Your task to perform on an android device: Is it going to rain tomorrow? Image 0: 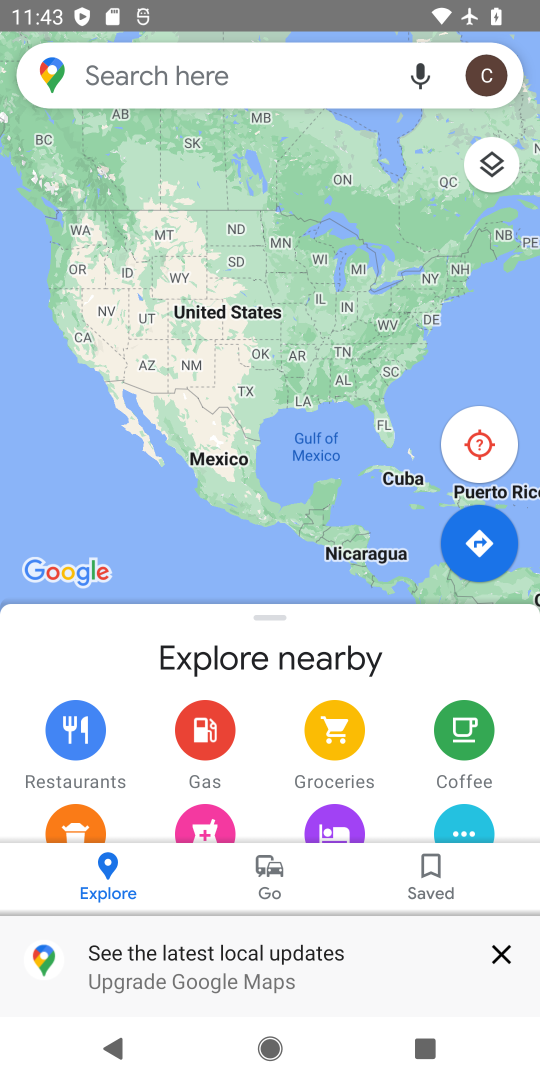
Step 0: press home button
Your task to perform on an android device: Is it going to rain tomorrow? Image 1: 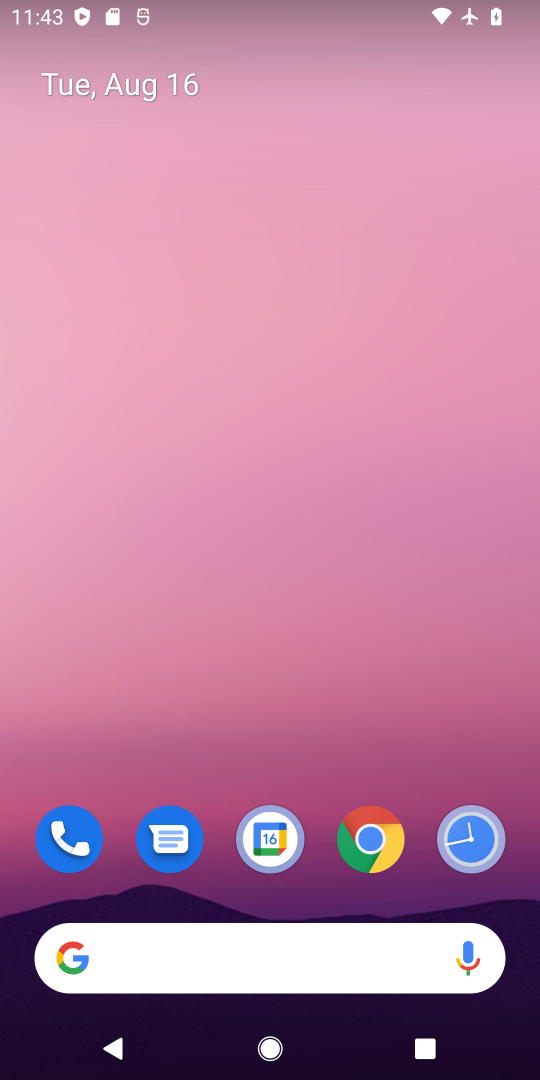
Step 1: click (206, 956)
Your task to perform on an android device: Is it going to rain tomorrow? Image 2: 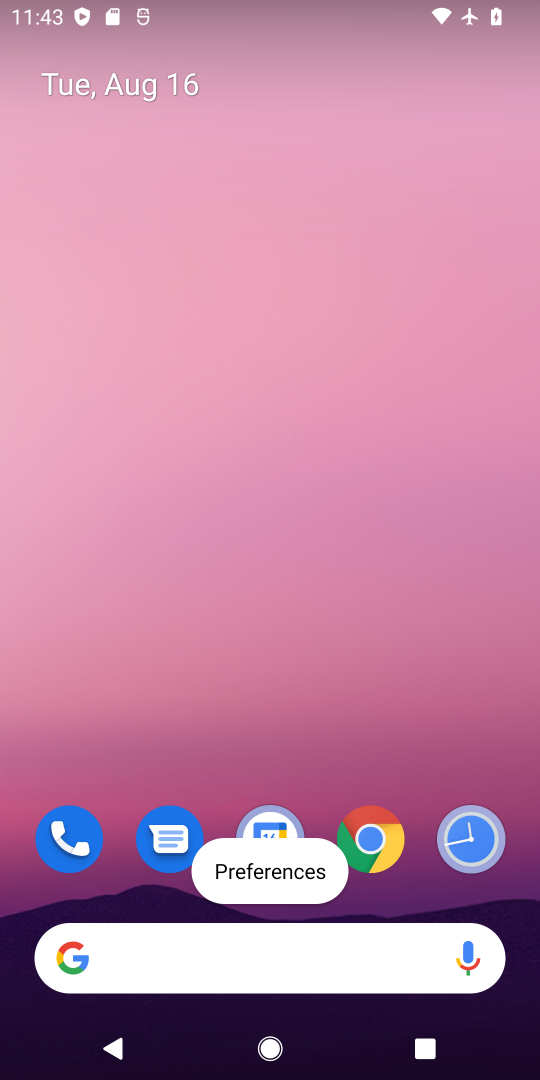
Step 2: click (201, 965)
Your task to perform on an android device: Is it going to rain tomorrow? Image 3: 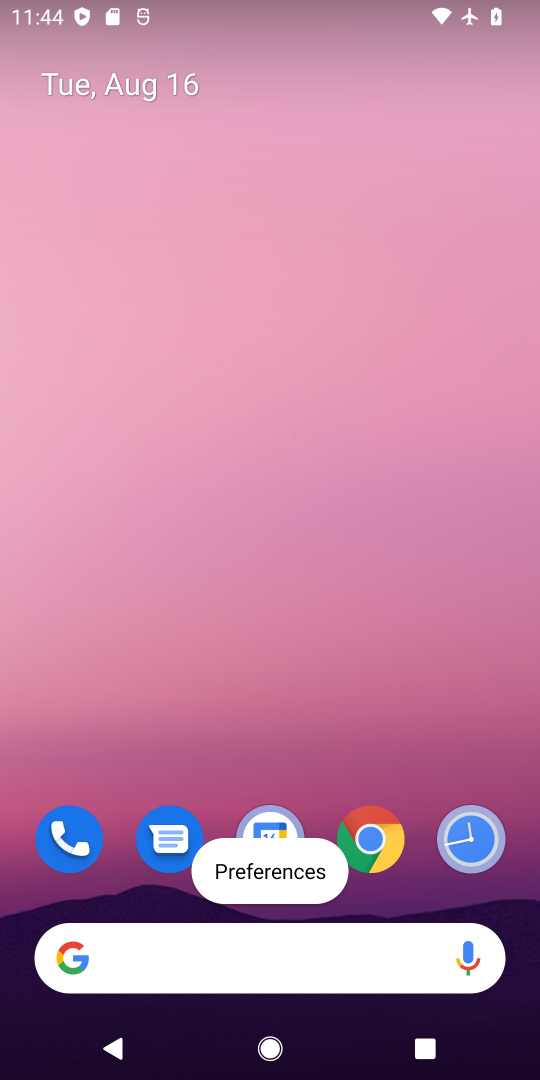
Step 3: click (202, 964)
Your task to perform on an android device: Is it going to rain tomorrow? Image 4: 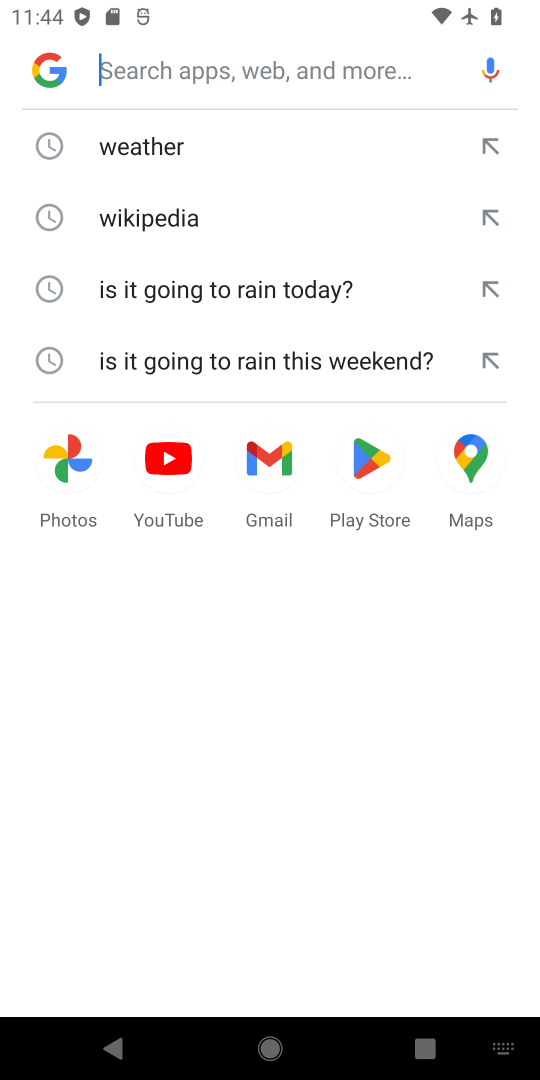
Step 4: click (158, 143)
Your task to perform on an android device: Is it going to rain tomorrow? Image 5: 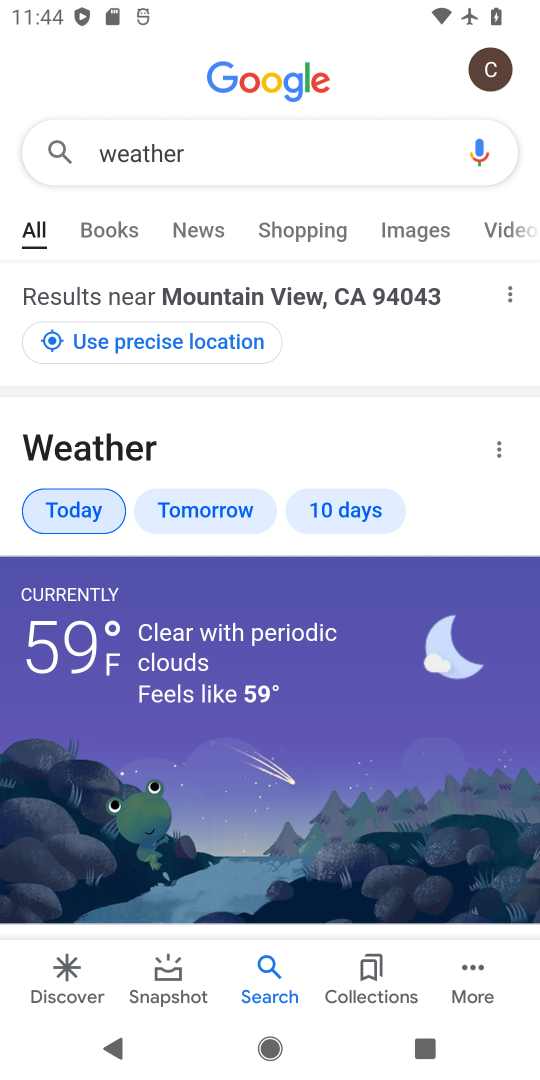
Step 5: task complete